Your task to perform on an android device: Open calendar and show me the second week of next month Image 0: 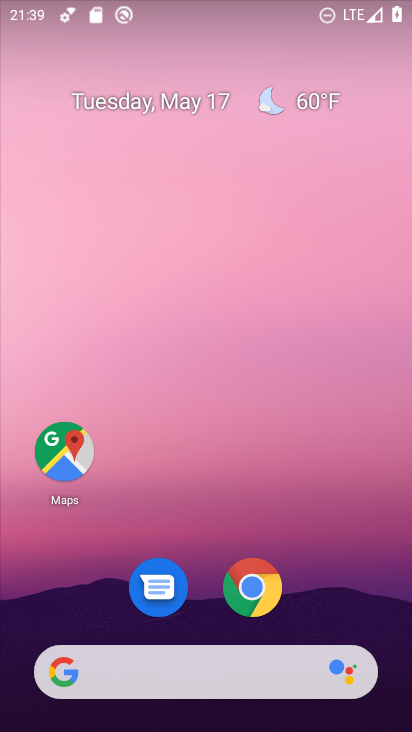
Step 0: drag from (180, 531) to (196, 197)
Your task to perform on an android device: Open calendar and show me the second week of next month Image 1: 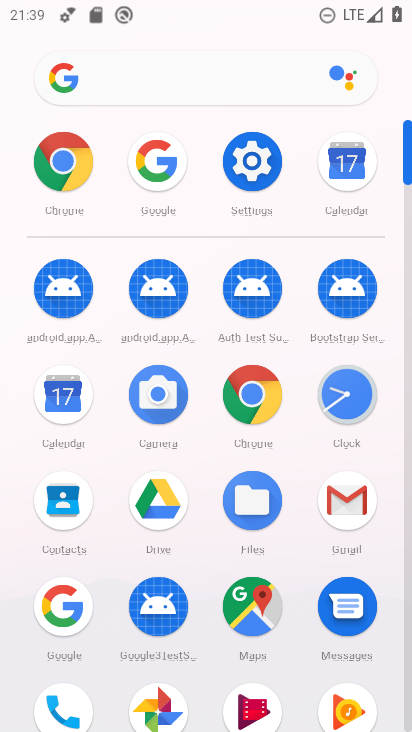
Step 1: click (73, 415)
Your task to perform on an android device: Open calendar and show me the second week of next month Image 2: 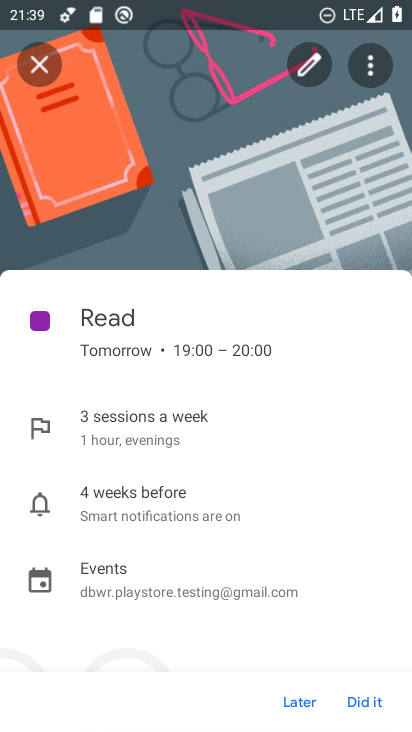
Step 2: click (42, 69)
Your task to perform on an android device: Open calendar and show me the second week of next month Image 3: 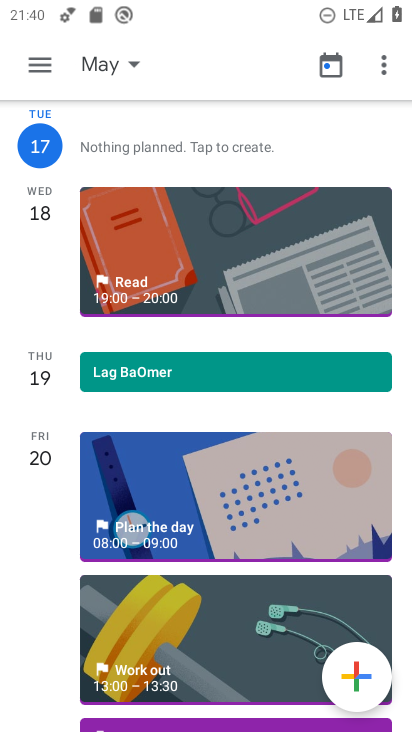
Step 3: click (53, 64)
Your task to perform on an android device: Open calendar and show me the second week of next month Image 4: 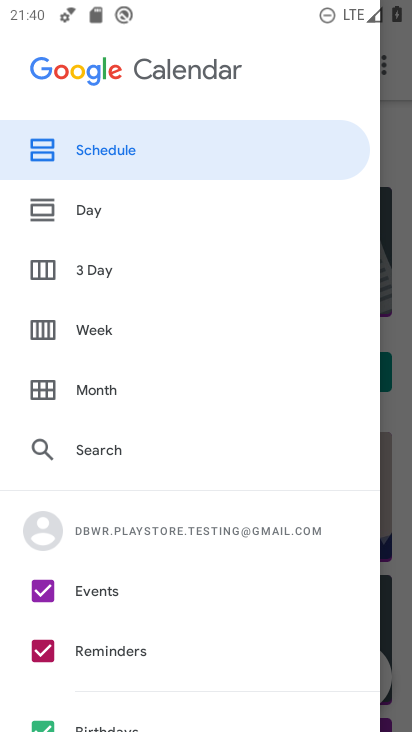
Step 4: click (90, 334)
Your task to perform on an android device: Open calendar and show me the second week of next month Image 5: 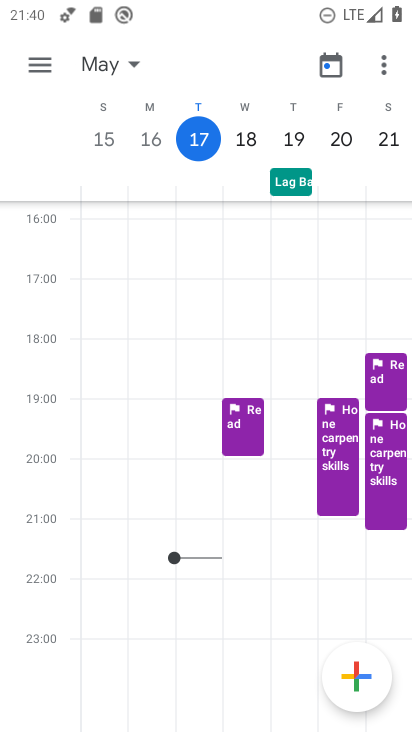
Step 5: click (144, 73)
Your task to perform on an android device: Open calendar and show me the second week of next month Image 6: 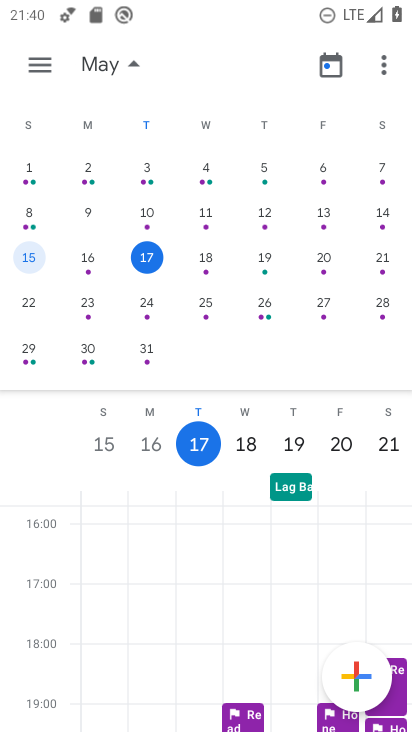
Step 6: drag from (315, 210) to (39, 328)
Your task to perform on an android device: Open calendar and show me the second week of next month Image 7: 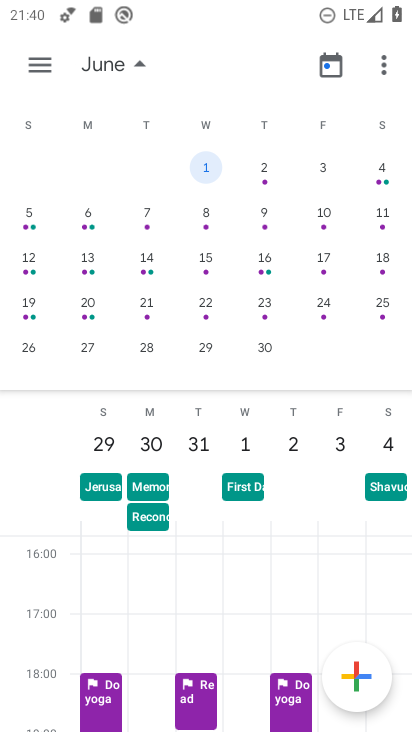
Step 7: click (20, 219)
Your task to perform on an android device: Open calendar and show me the second week of next month Image 8: 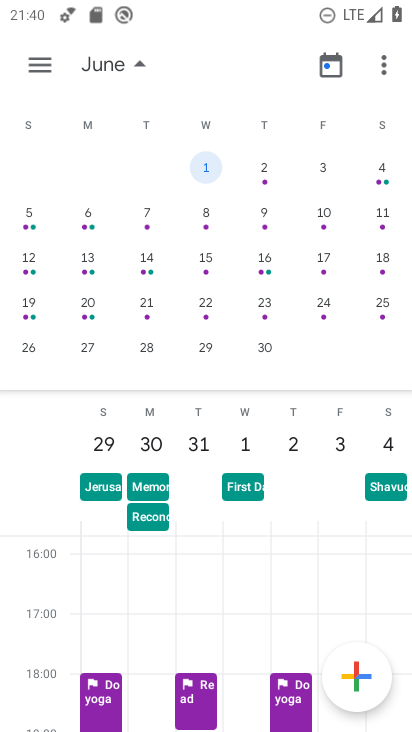
Step 8: click (27, 219)
Your task to perform on an android device: Open calendar and show me the second week of next month Image 9: 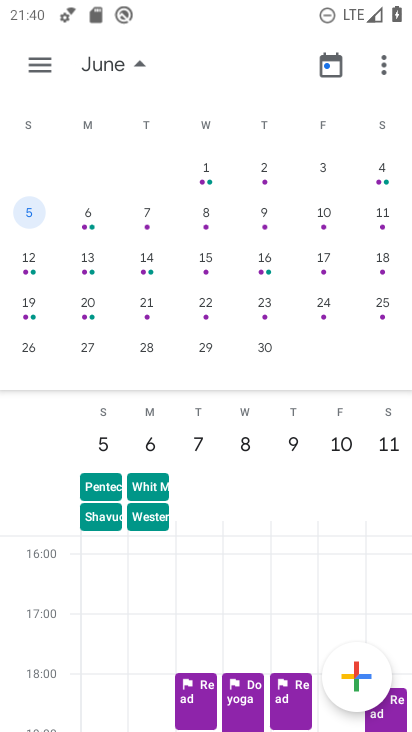
Step 9: click (135, 65)
Your task to perform on an android device: Open calendar and show me the second week of next month Image 10: 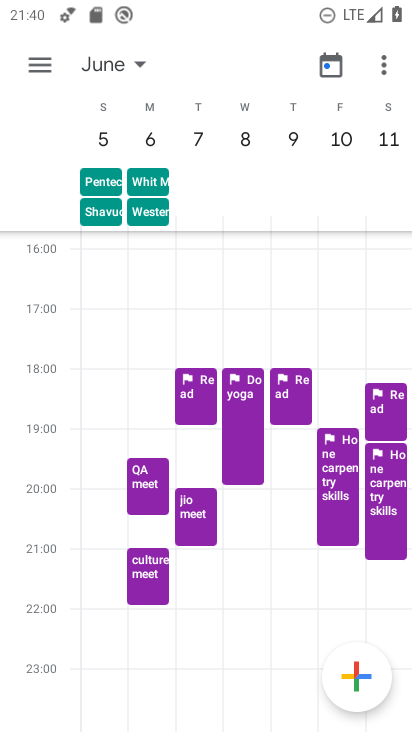
Step 10: task complete